Your task to perform on an android device: Find coffee shops on Maps Image 0: 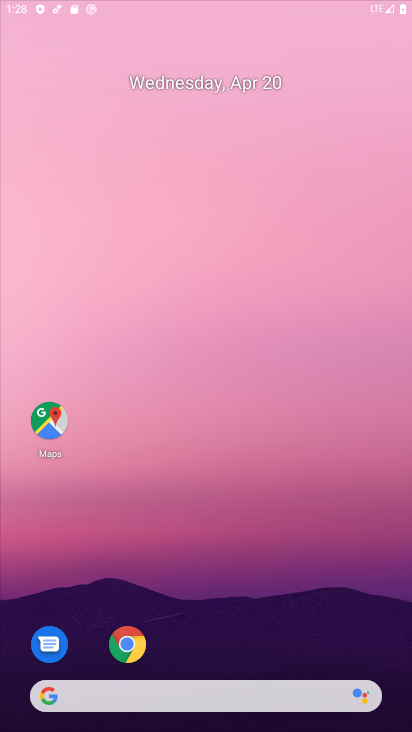
Step 0: drag from (257, 604) to (235, 39)
Your task to perform on an android device: Find coffee shops on Maps Image 1: 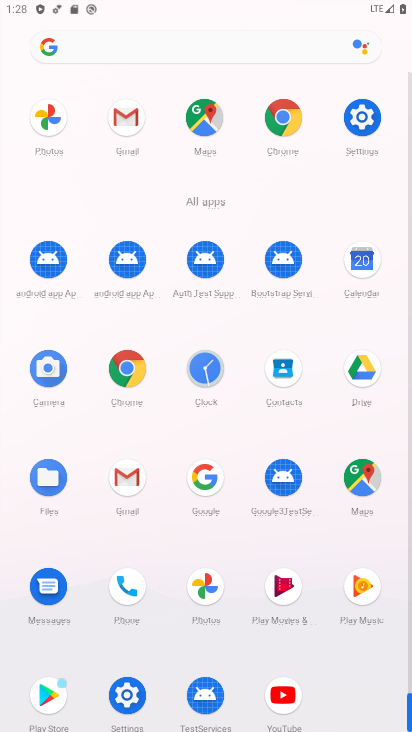
Step 1: drag from (344, 489) to (386, 478)
Your task to perform on an android device: Find coffee shops on Maps Image 2: 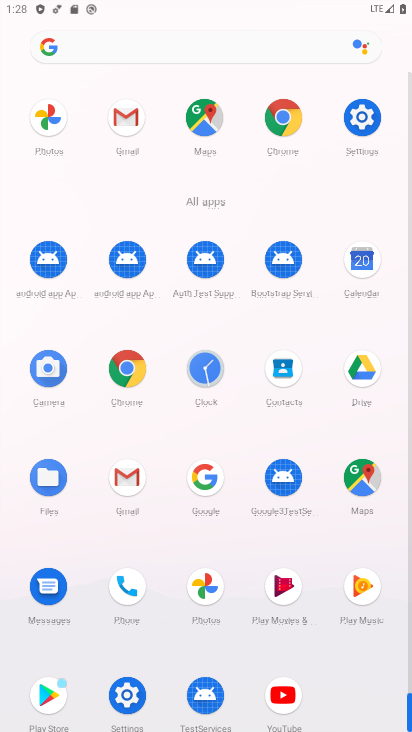
Step 2: click (358, 471)
Your task to perform on an android device: Find coffee shops on Maps Image 3: 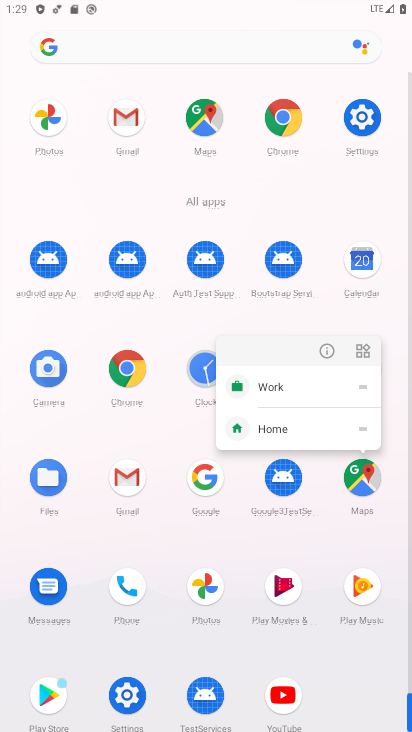
Step 3: click (355, 476)
Your task to perform on an android device: Find coffee shops on Maps Image 4: 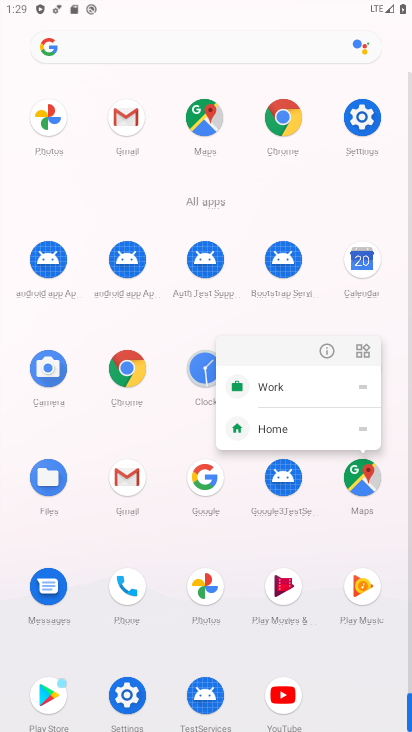
Step 4: click (355, 476)
Your task to perform on an android device: Find coffee shops on Maps Image 5: 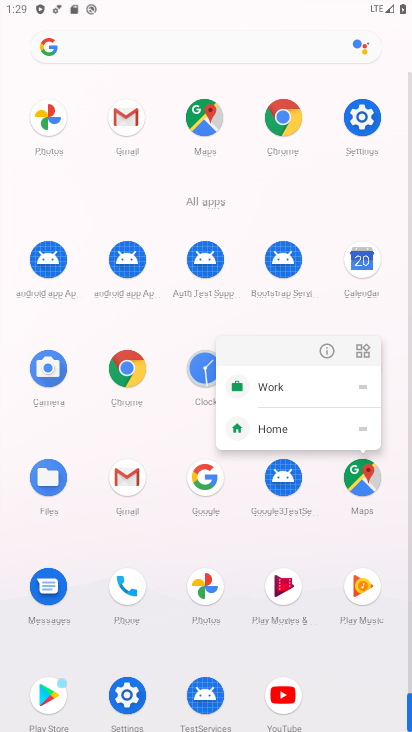
Step 5: click (349, 484)
Your task to perform on an android device: Find coffee shops on Maps Image 6: 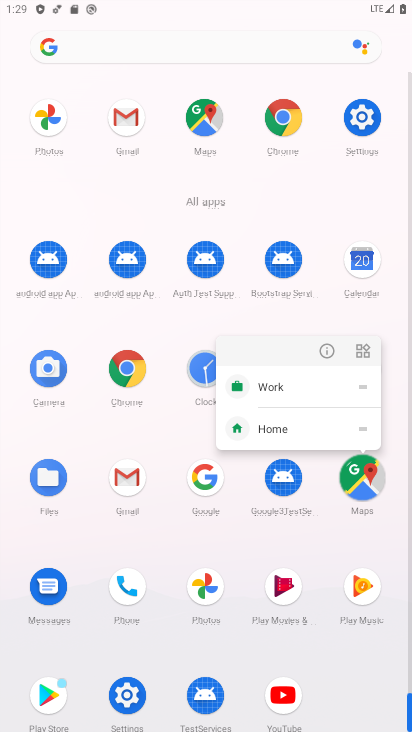
Step 6: click (363, 484)
Your task to perform on an android device: Find coffee shops on Maps Image 7: 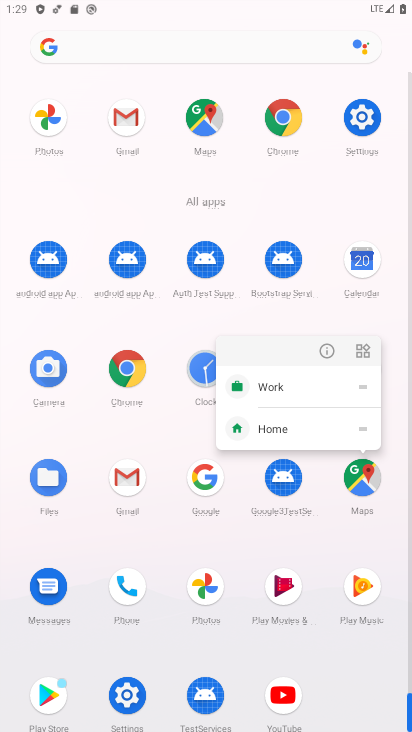
Step 7: click (357, 484)
Your task to perform on an android device: Find coffee shops on Maps Image 8: 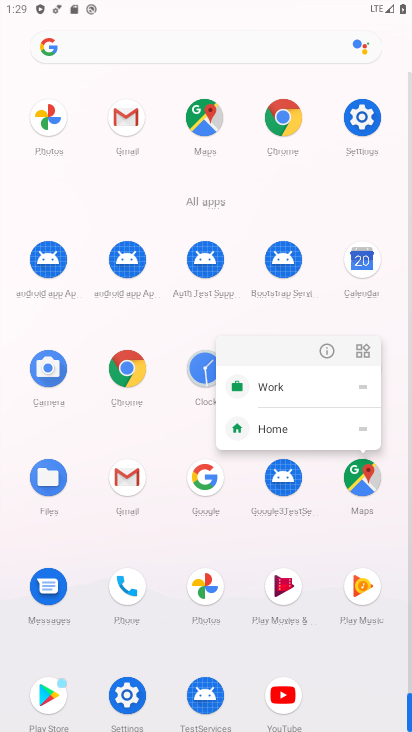
Step 8: click (357, 484)
Your task to perform on an android device: Find coffee shops on Maps Image 9: 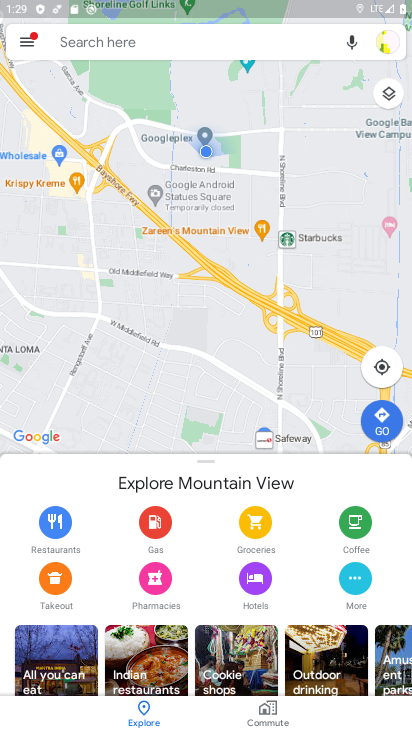
Step 9: click (132, 43)
Your task to perform on an android device: Find coffee shops on Maps Image 10: 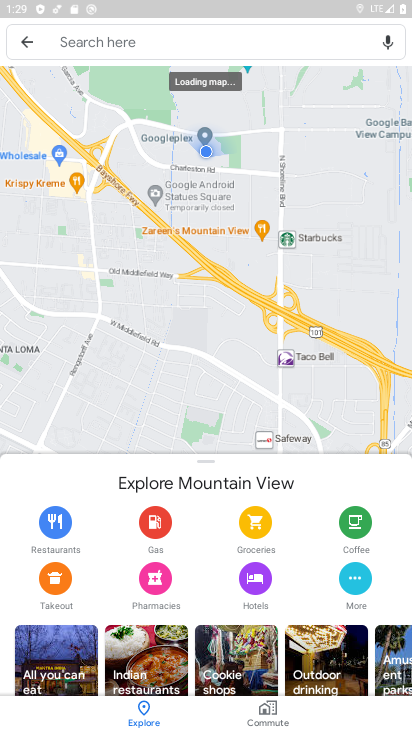
Step 10: click (132, 43)
Your task to perform on an android device: Find coffee shops on Maps Image 11: 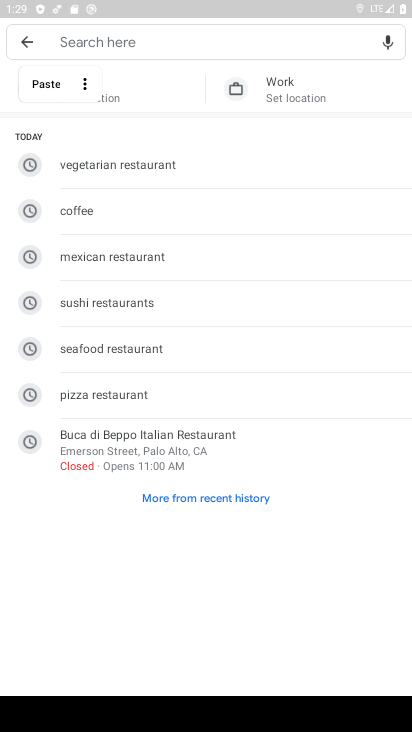
Step 11: type "coffee shop"
Your task to perform on an android device: Find coffee shops on Maps Image 12: 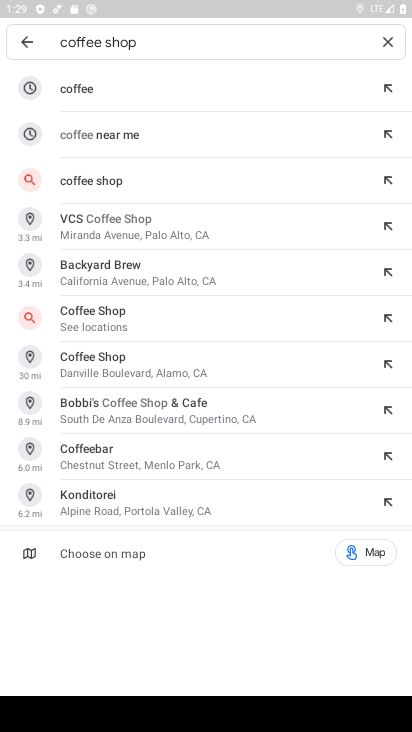
Step 12: click (108, 177)
Your task to perform on an android device: Find coffee shops on Maps Image 13: 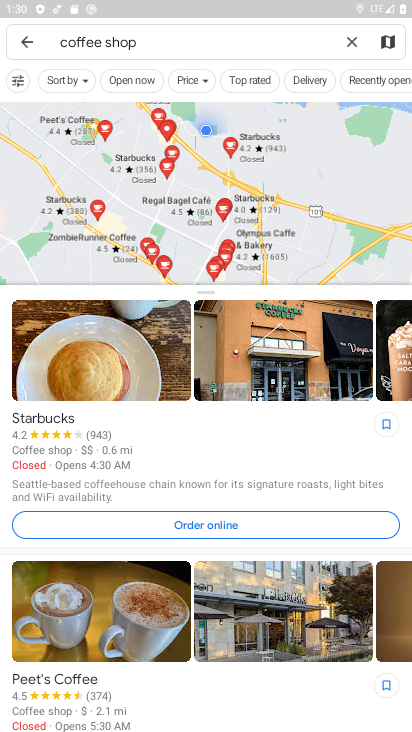
Step 13: task complete